Your task to perform on an android device: turn vacation reply on in the gmail app Image 0: 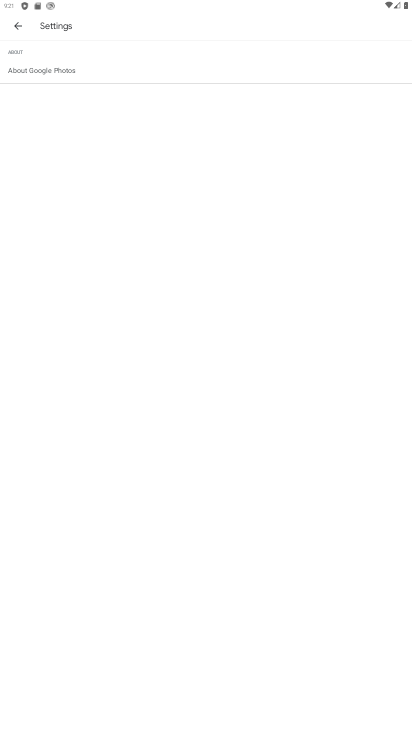
Step 0: press home button
Your task to perform on an android device: turn vacation reply on in the gmail app Image 1: 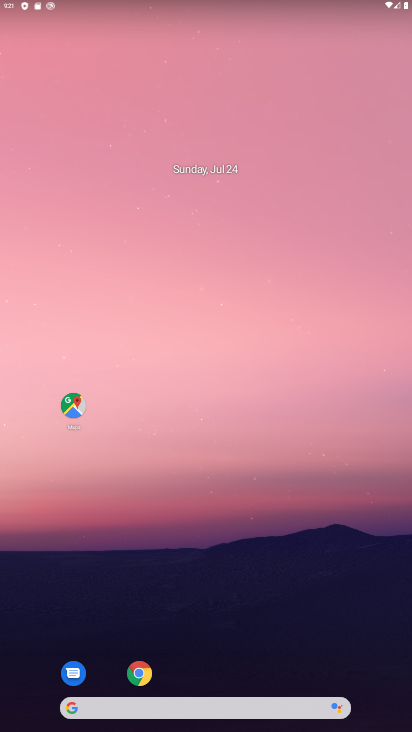
Step 1: drag from (206, 674) to (182, 122)
Your task to perform on an android device: turn vacation reply on in the gmail app Image 2: 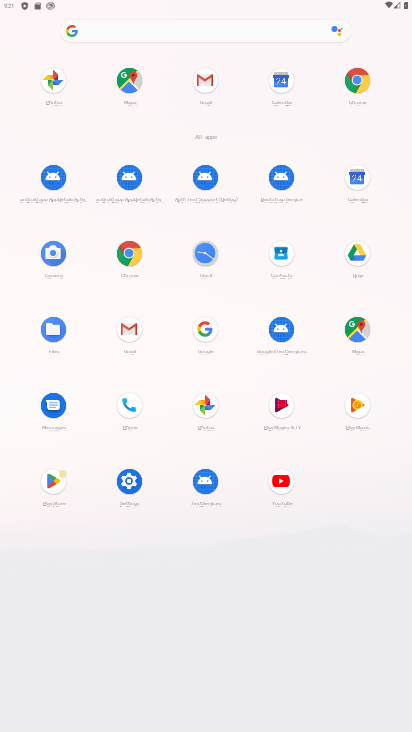
Step 2: click (138, 323)
Your task to perform on an android device: turn vacation reply on in the gmail app Image 3: 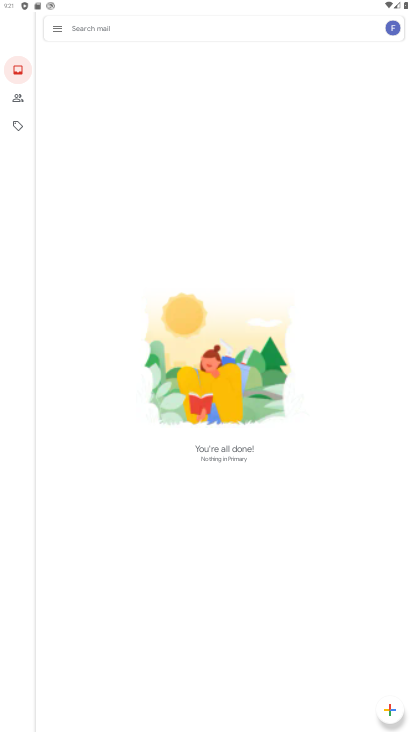
Step 3: click (55, 28)
Your task to perform on an android device: turn vacation reply on in the gmail app Image 4: 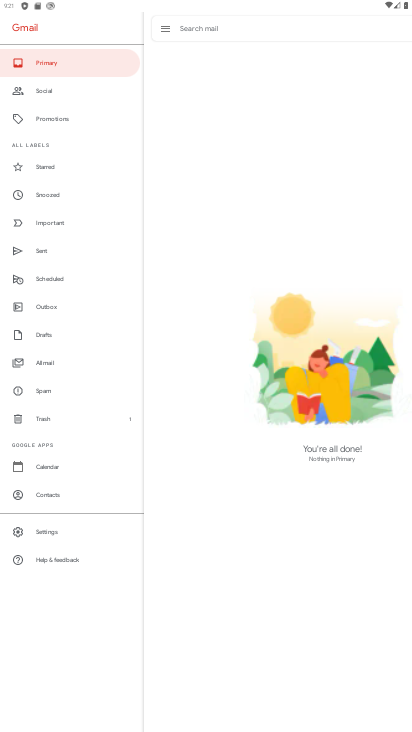
Step 4: click (55, 528)
Your task to perform on an android device: turn vacation reply on in the gmail app Image 5: 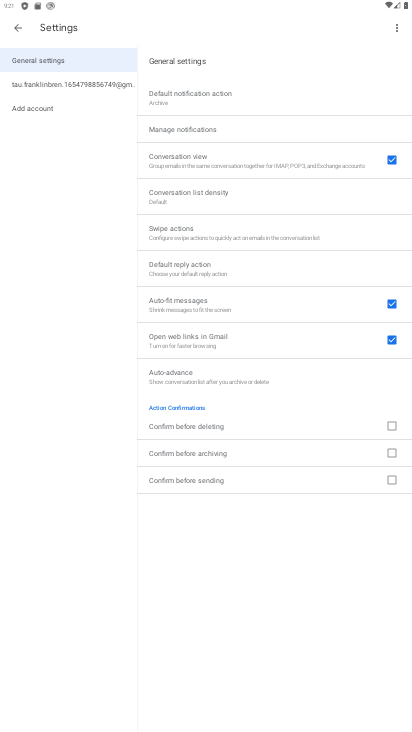
Step 5: click (93, 84)
Your task to perform on an android device: turn vacation reply on in the gmail app Image 6: 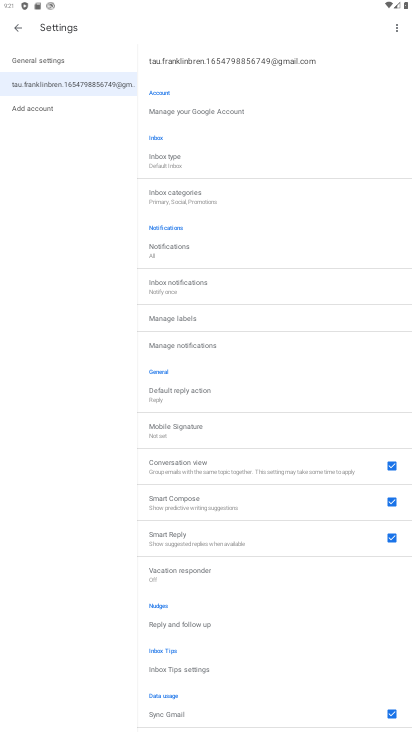
Step 6: click (182, 571)
Your task to perform on an android device: turn vacation reply on in the gmail app Image 7: 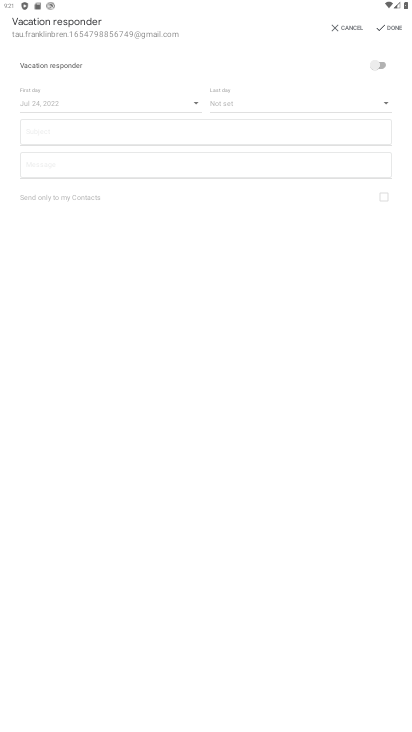
Step 7: click (393, 62)
Your task to perform on an android device: turn vacation reply on in the gmail app Image 8: 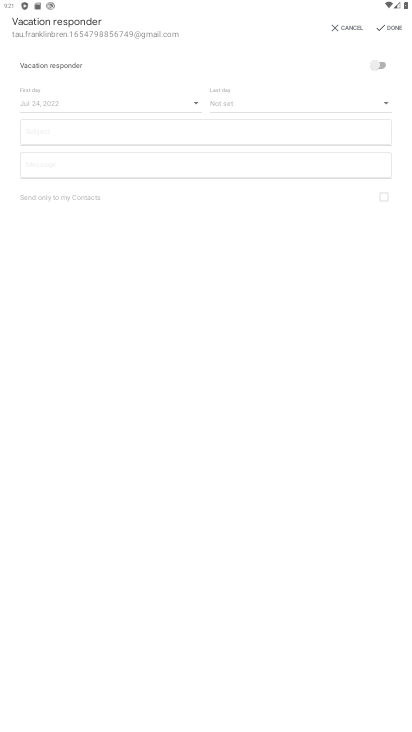
Step 8: click (382, 62)
Your task to perform on an android device: turn vacation reply on in the gmail app Image 9: 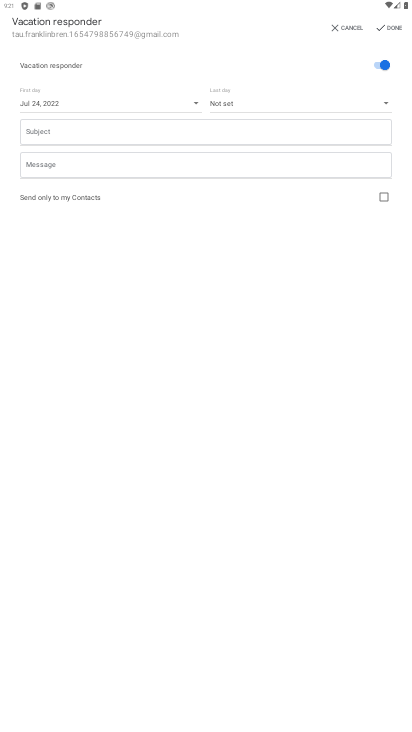
Step 9: click (87, 129)
Your task to perform on an android device: turn vacation reply on in the gmail app Image 10: 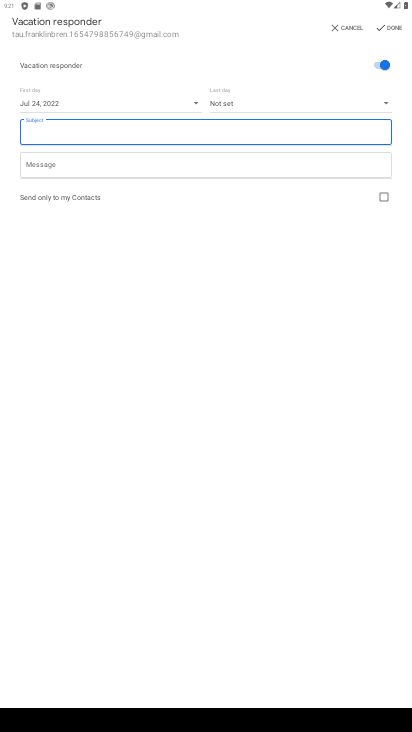
Step 10: type "x"
Your task to perform on an android device: turn vacation reply on in the gmail app Image 11: 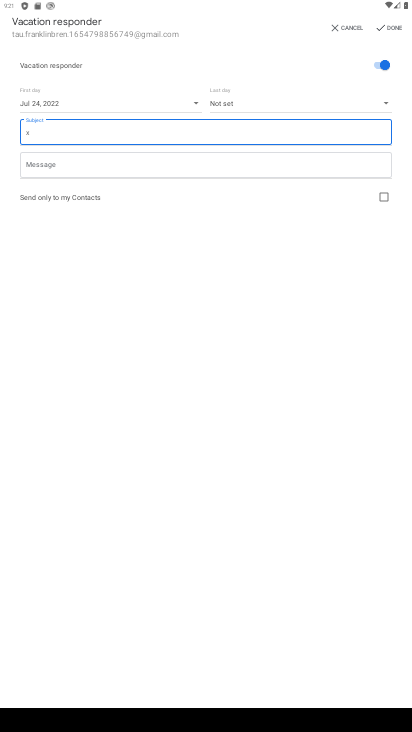
Step 11: click (385, 31)
Your task to perform on an android device: turn vacation reply on in the gmail app Image 12: 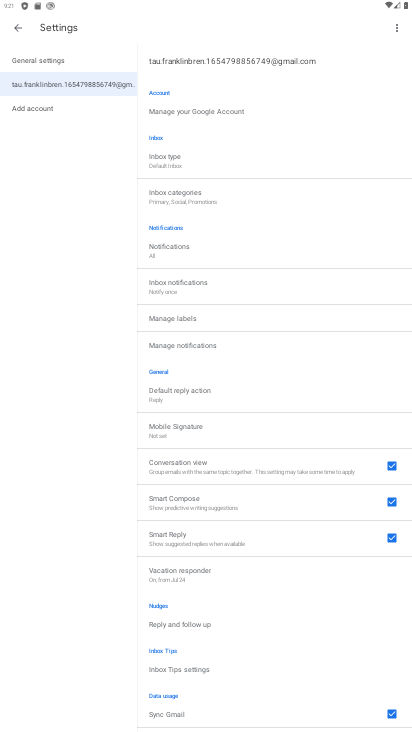
Step 12: task complete